Your task to perform on an android device: change keyboard looks Image 0: 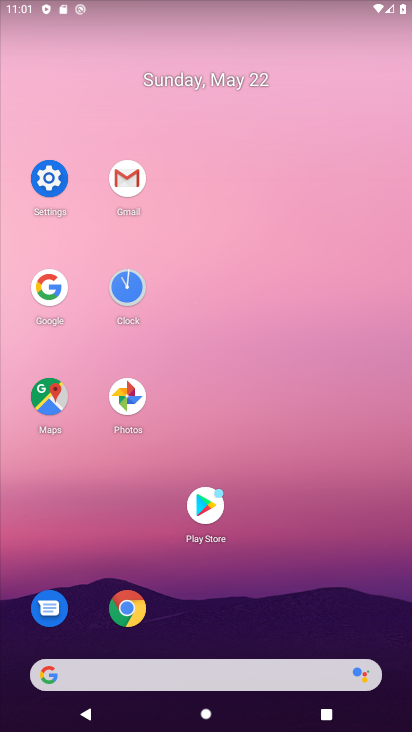
Step 0: click (60, 202)
Your task to perform on an android device: change keyboard looks Image 1: 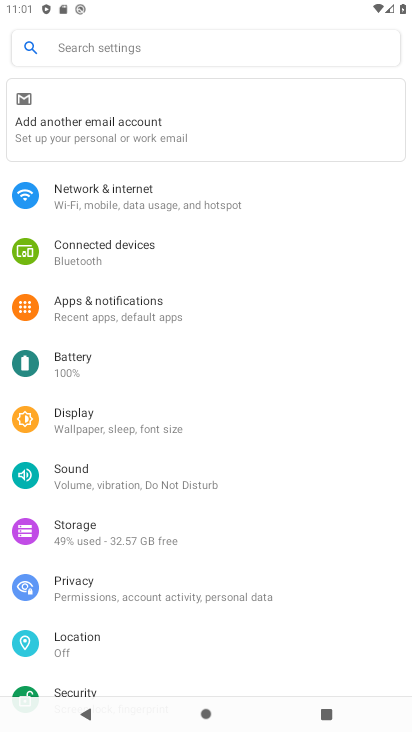
Step 1: drag from (199, 631) to (193, 232)
Your task to perform on an android device: change keyboard looks Image 2: 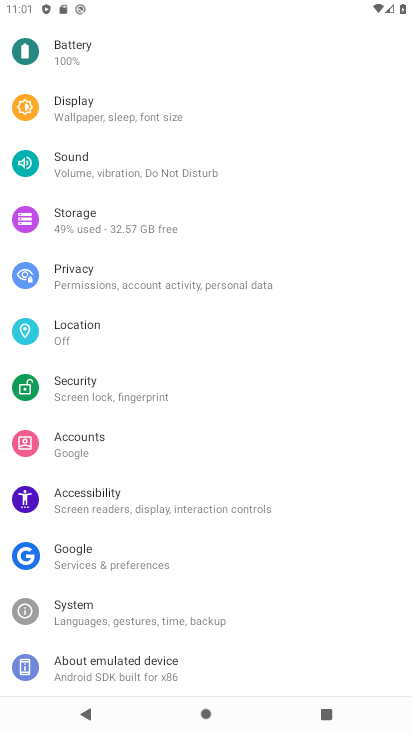
Step 2: click (145, 608)
Your task to perform on an android device: change keyboard looks Image 3: 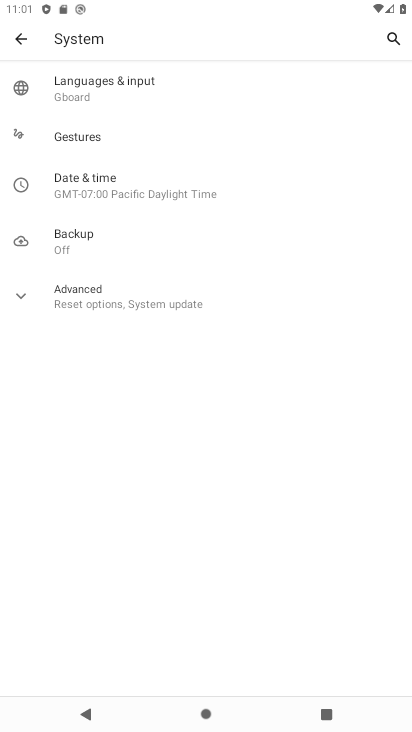
Step 3: click (151, 96)
Your task to perform on an android device: change keyboard looks Image 4: 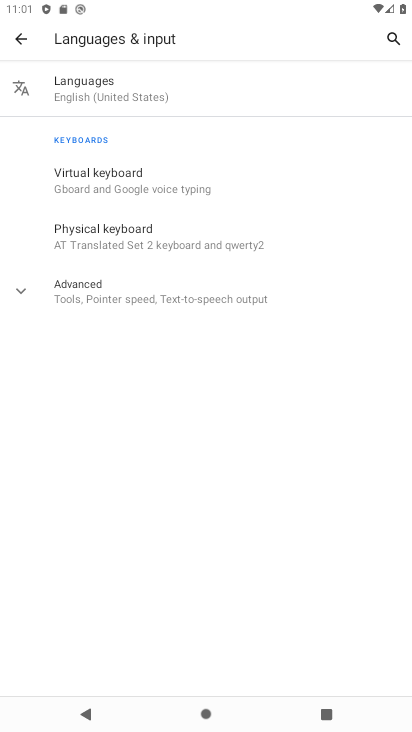
Step 4: click (155, 187)
Your task to perform on an android device: change keyboard looks Image 5: 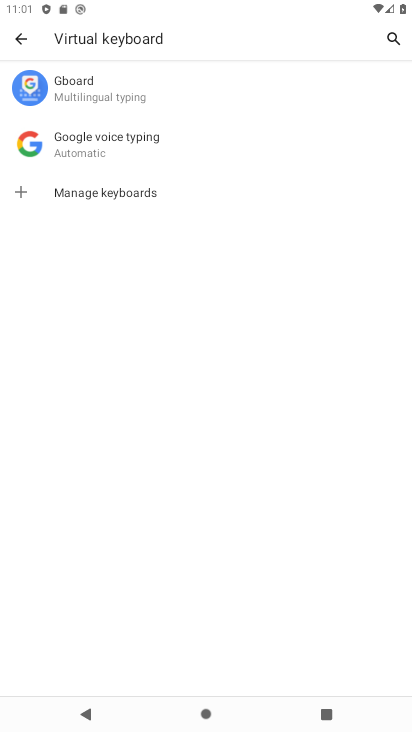
Step 5: click (134, 75)
Your task to perform on an android device: change keyboard looks Image 6: 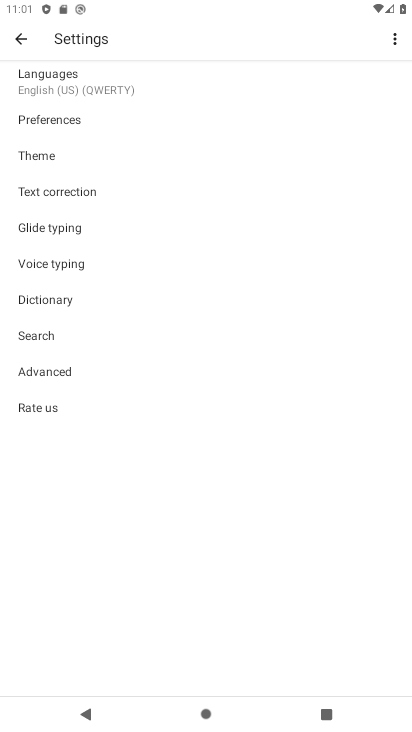
Step 6: drag from (97, 143) to (8, 154)
Your task to perform on an android device: change keyboard looks Image 7: 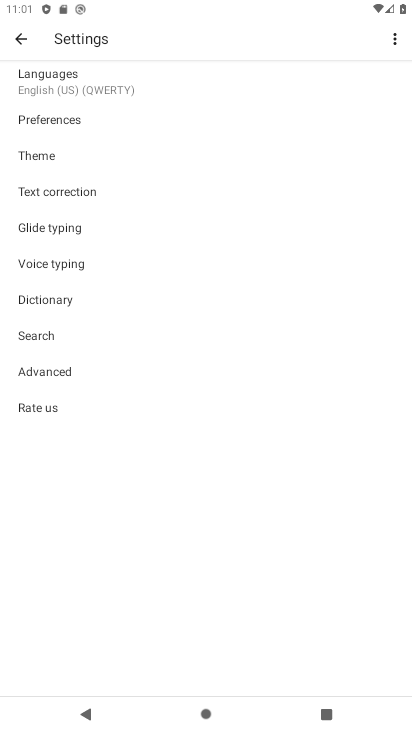
Step 7: click (62, 160)
Your task to perform on an android device: change keyboard looks Image 8: 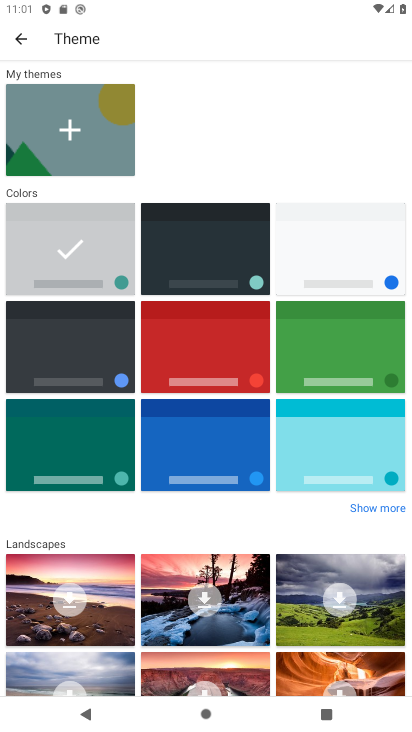
Step 8: click (394, 383)
Your task to perform on an android device: change keyboard looks Image 9: 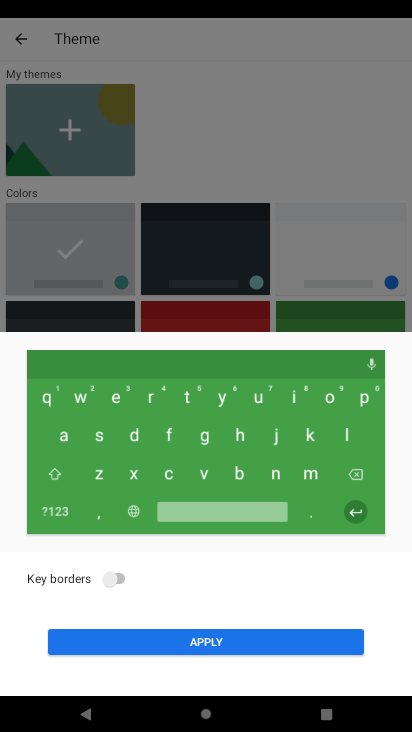
Step 9: click (116, 581)
Your task to perform on an android device: change keyboard looks Image 10: 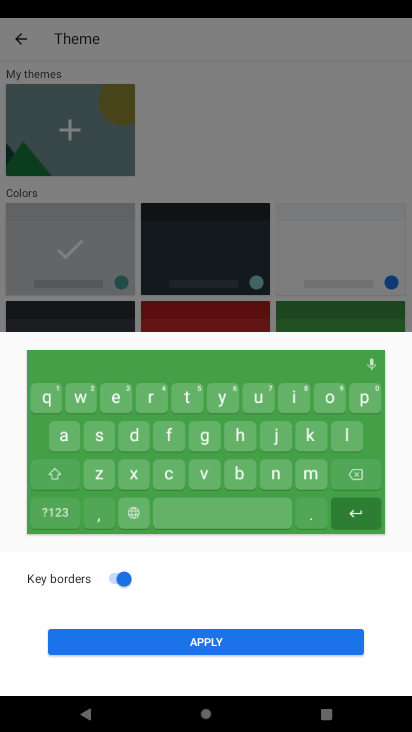
Step 10: click (246, 642)
Your task to perform on an android device: change keyboard looks Image 11: 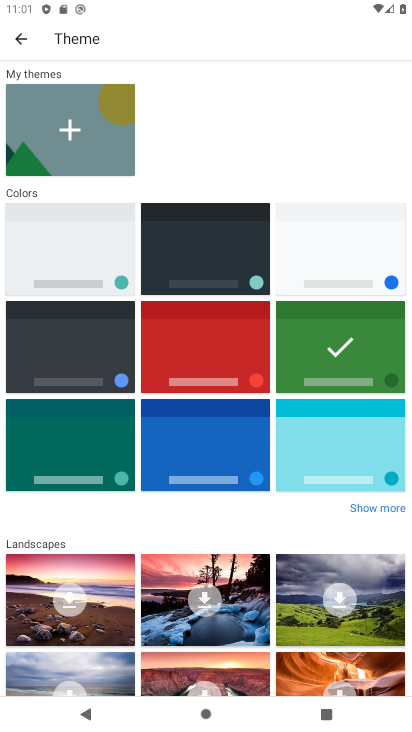
Step 11: task complete